Your task to perform on an android device: What is the recent news? Image 0: 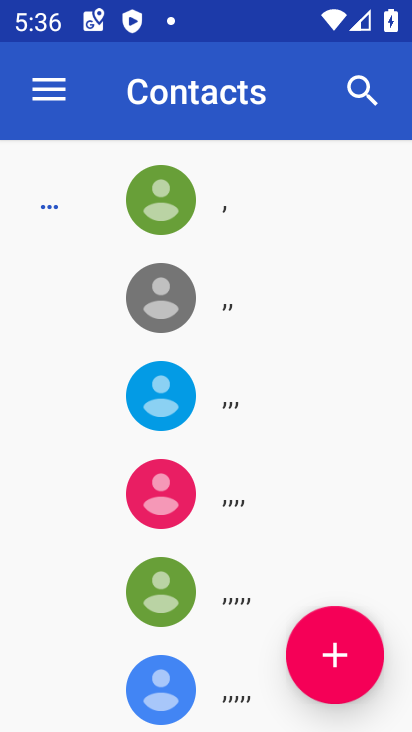
Step 0: press home button
Your task to perform on an android device: What is the recent news? Image 1: 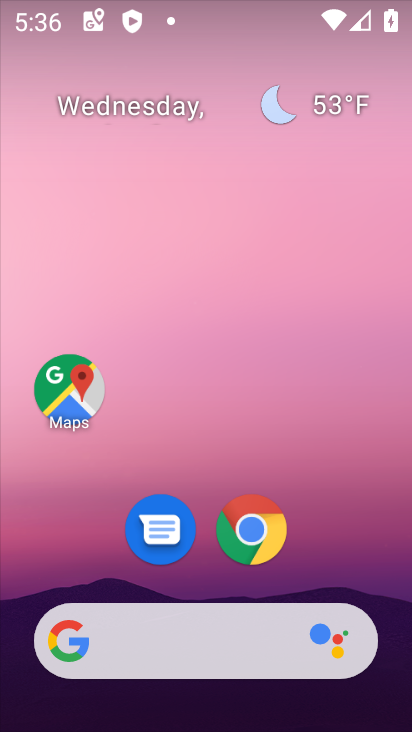
Step 1: click (125, 660)
Your task to perform on an android device: What is the recent news? Image 2: 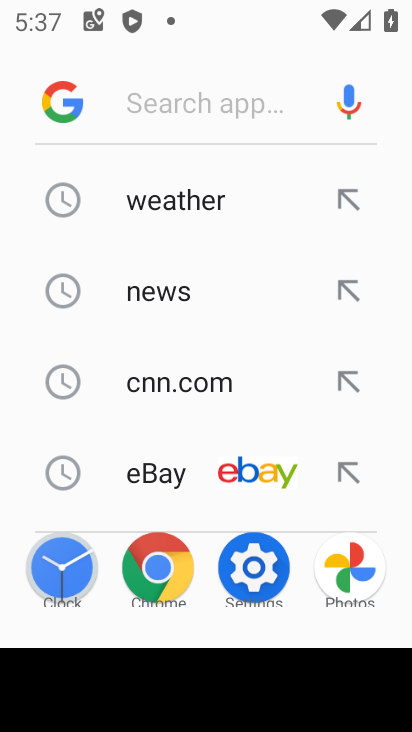
Step 2: type "recent news"
Your task to perform on an android device: What is the recent news? Image 3: 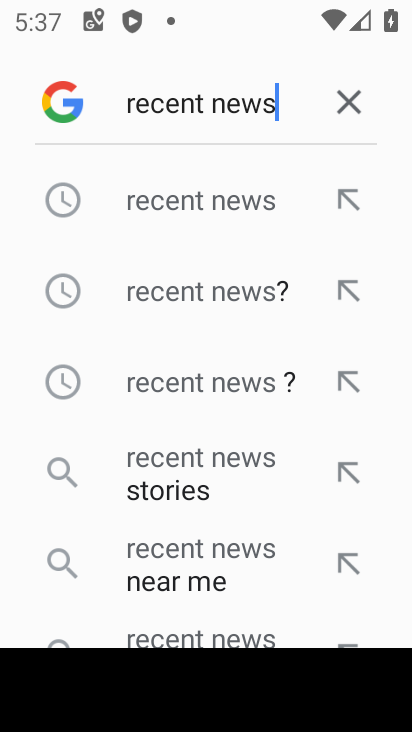
Step 3: click (226, 231)
Your task to perform on an android device: What is the recent news? Image 4: 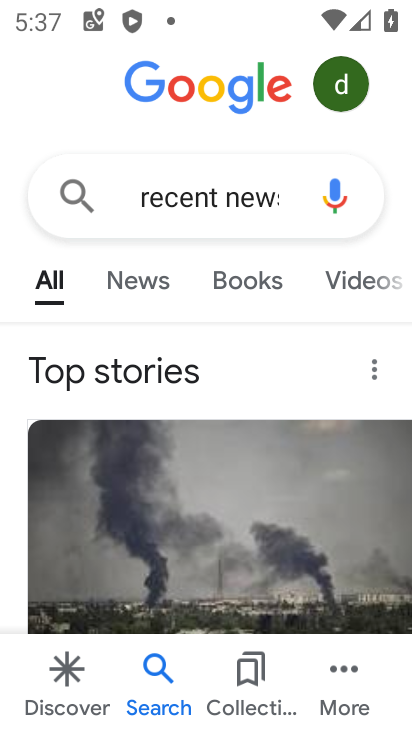
Step 4: task complete